Your task to perform on an android device: Open Android settings Image 0: 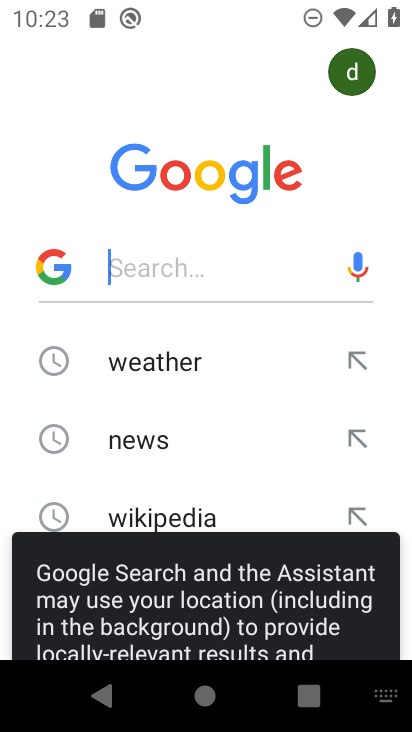
Step 0: press home button
Your task to perform on an android device: Open Android settings Image 1: 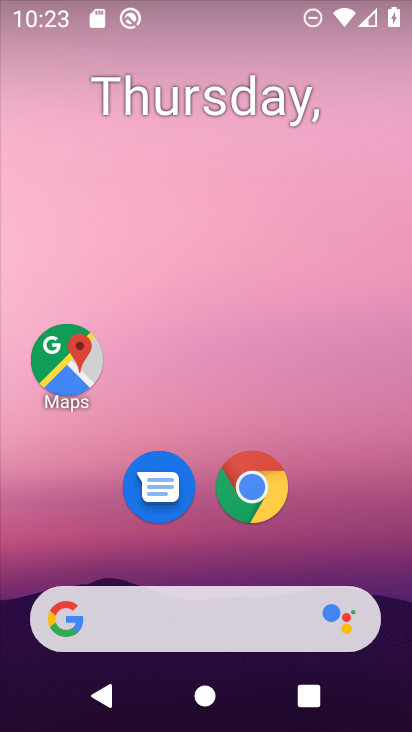
Step 1: drag from (320, 523) to (140, 120)
Your task to perform on an android device: Open Android settings Image 2: 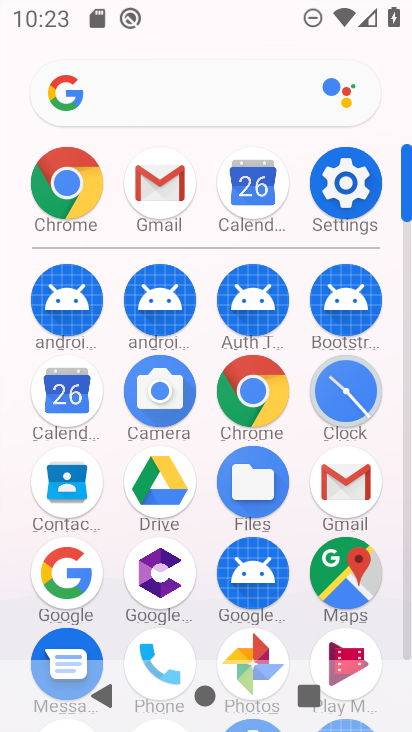
Step 2: click (352, 206)
Your task to perform on an android device: Open Android settings Image 3: 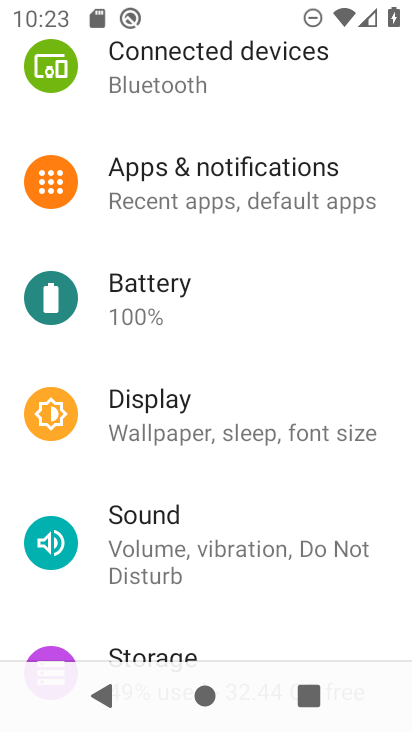
Step 3: drag from (253, 602) to (208, 163)
Your task to perform on an android device: Open Android settings Image 4: 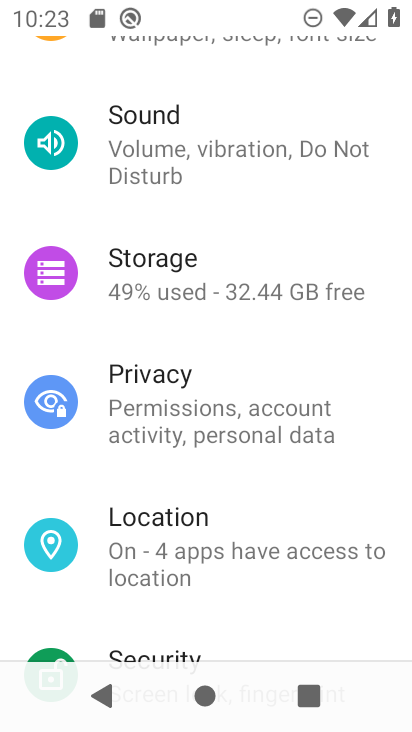
Step 4: drag from (238, 569) to (210, 132)
Your task to perform on an android device: Open Android settings Image 5: 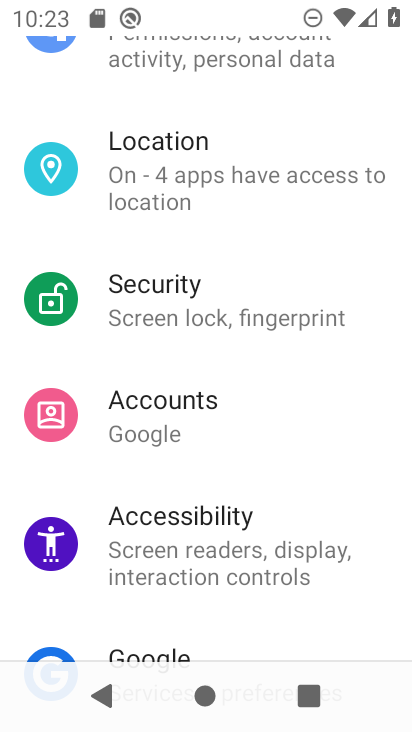
Step 5: drag from (205, 565) to (189, 150)
Your task to perform on an android device: Open Android settings Image 6: 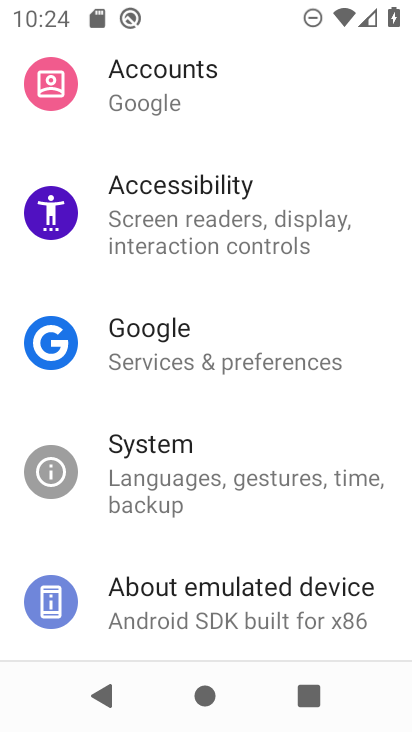
Step 6: click (210, 603)
Your task to perform on an android device: Open Android settings Image 7: 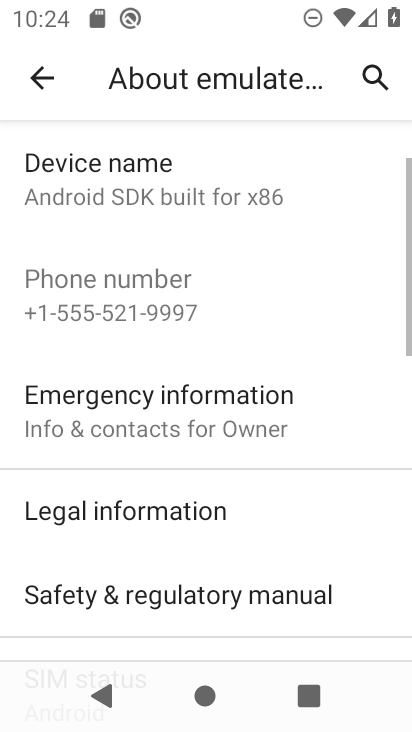
Step 7: drag from (206, 579) to (201, 197)
Your task to perform on an android device: Open Android settings Image 8: 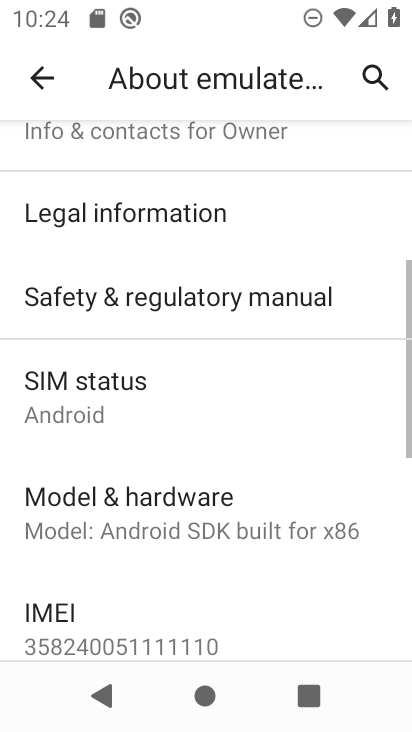
Step 8: drag from (199, 501) to (187, 198)
Your task to perform on an android device: Open Android settings Image 9: 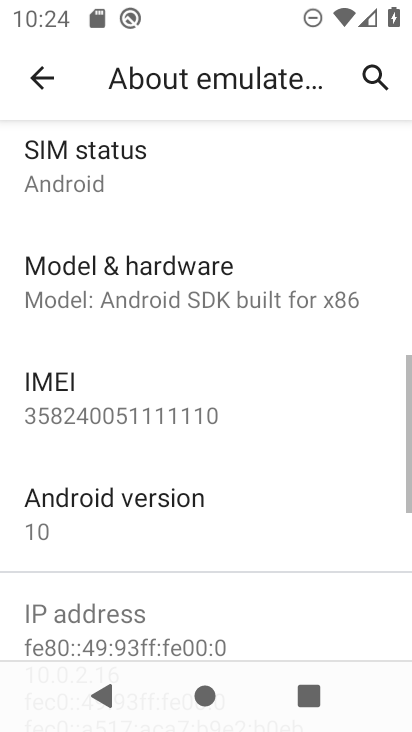
Step 9: click (118, 511)
Your task to perform on an android device: Open Android settings Image 10: 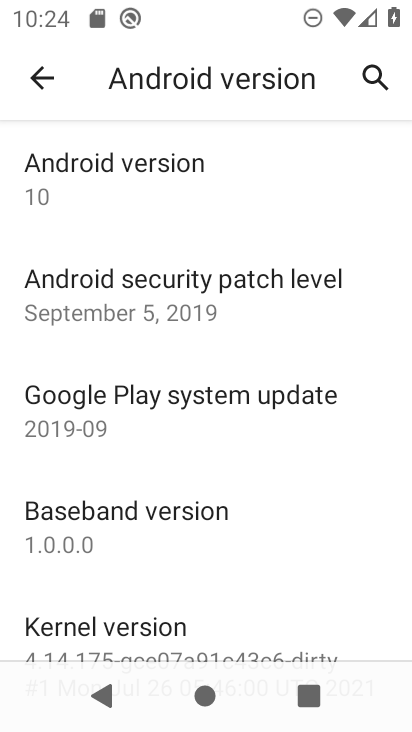
Step 10: task complete